Your task to perform on an android device: toggle airplane mode Image 0: 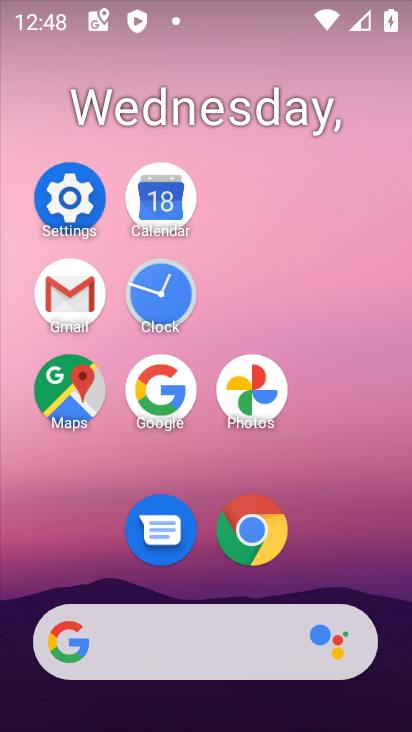
Step 0: click (91, 200)
Your task to perform on an android device: toggle airplane mode Image 1: 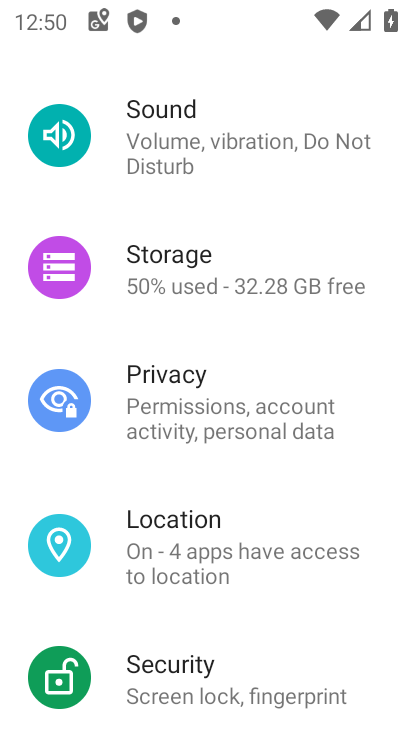
Step 1: drag from (276, 189) to (229, 621)
Your task to perform on an android device: toggle airplane mode Image 2: 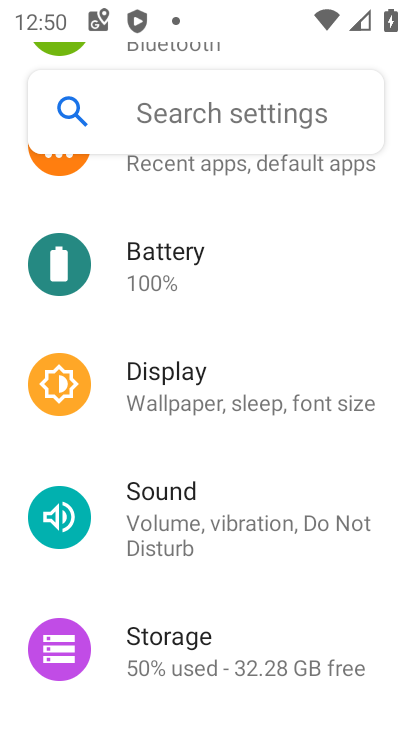
Step 2: drag from (247, 232) to (269, 629)
Your task to perform on an android device: toggle airplane mode Image 3: 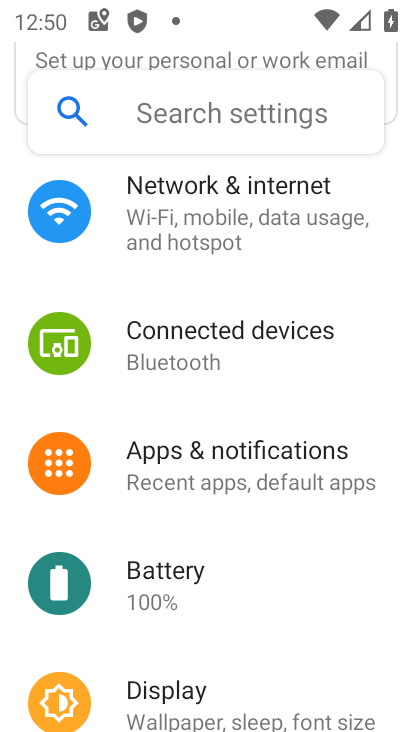
Step 3: click (290, 220)
Your task to perform on an android device: toggle airplane mode Image 4: 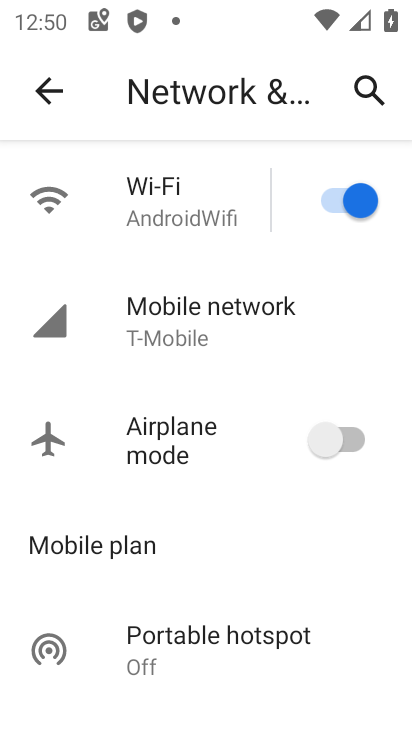
Step 4: click (339, 438)
Your task to perform on an android device: toggle airplane mode Image 5: 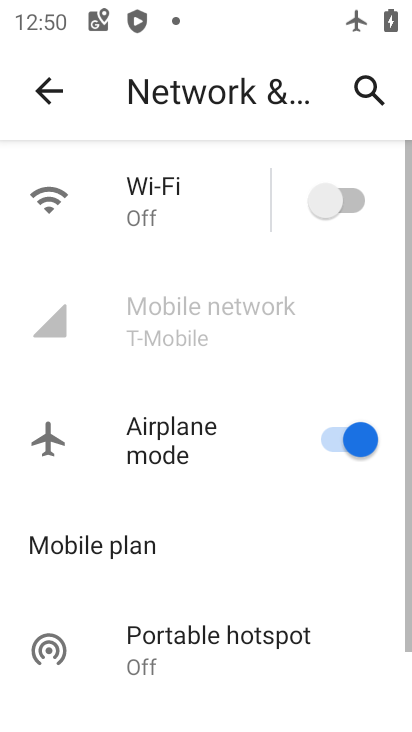
Step 5: task complete